Your task to perform on an android device: turn notification dots off Image 0: 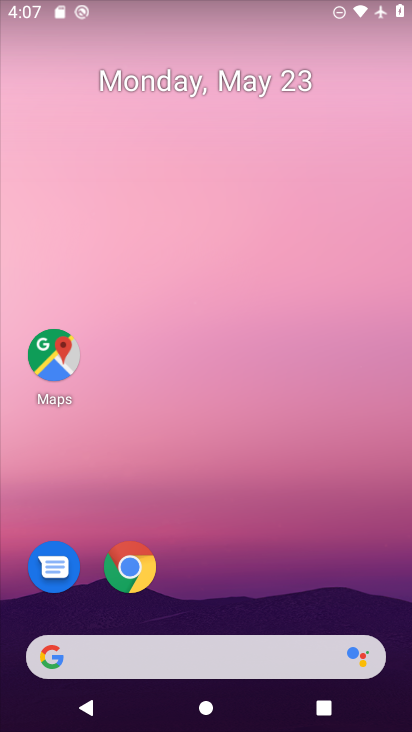
Step 0: drag from (386, 641) to (291, 85)
Your task to perform on an android device: turn notification dots off Image 1: 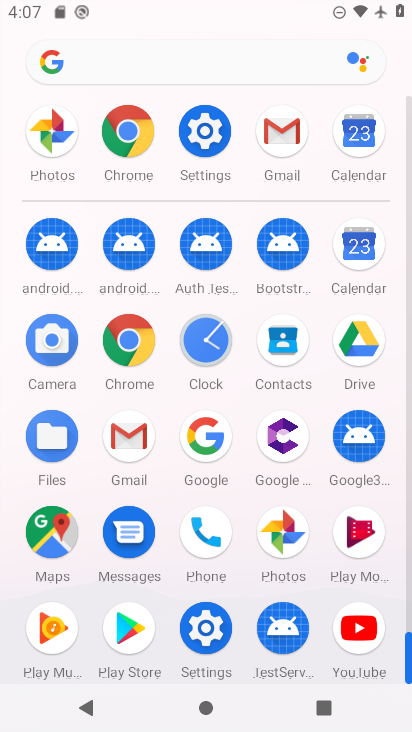
Step 1: click (203, 627)
Your task to perform on an android device: turn notification dots off Image 2: 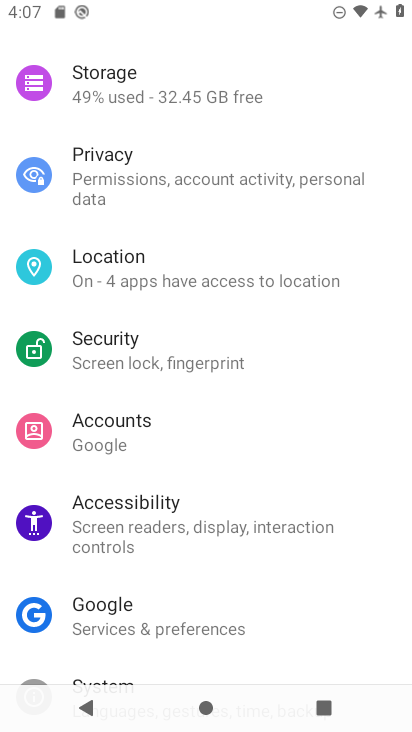
Step 2: drag from (309, 138) to (336, 471)
Your task to perform on an android device: turn notification dots off Image 3: 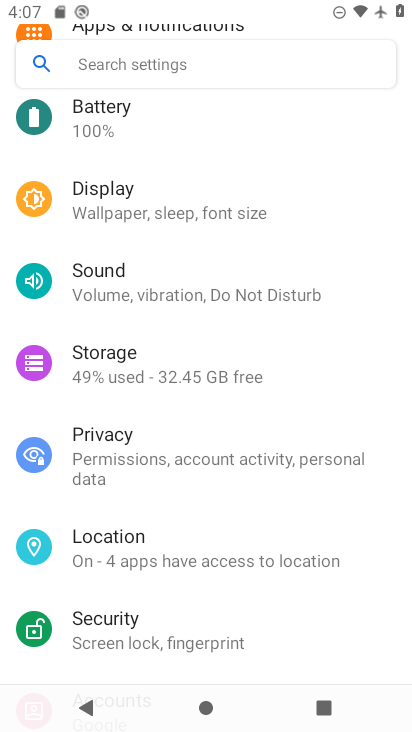
Step 3: drag from (173, 179) to (218, 495)
Your task to perform on an android device: turn notification dots off Image 4: 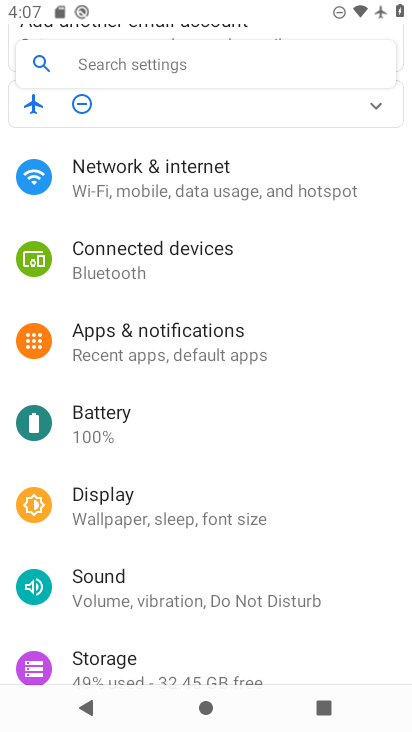
Step 4: click (137, 343)
Your task to perform on an android device: turn notification dots off Image 5: 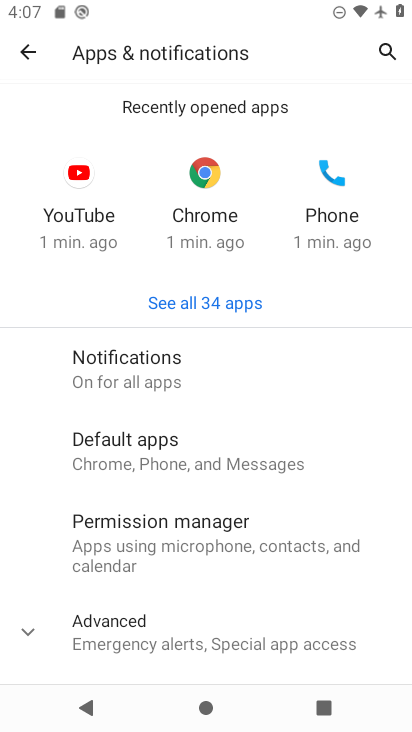
Step 5: click (139, 371)
Your task to perform on an android device: turn notification dots off Image 6: 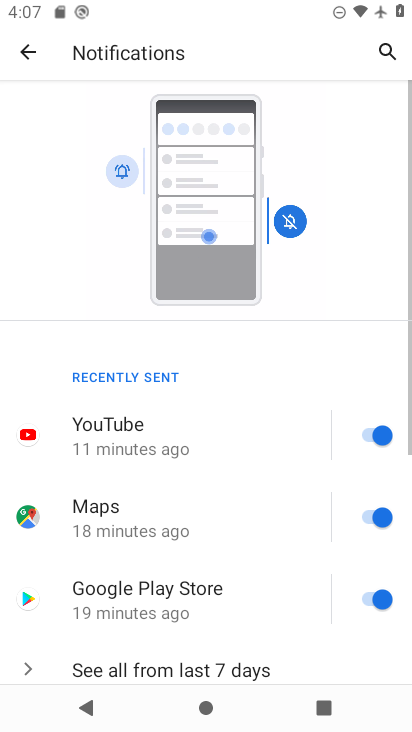
Step 6: drag from (299, 646) to (261, 124)
Your task to perform on an android device: turn notification dots off Image 7: 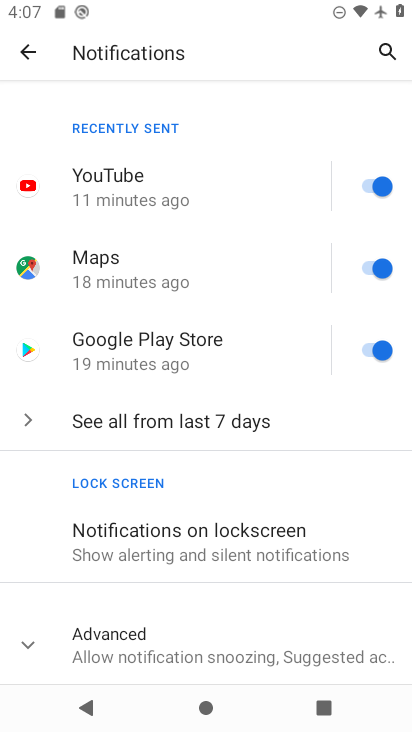
Step 7: click (130, 641)
Your task to perform on an android device: turn notification dots off Image 8: 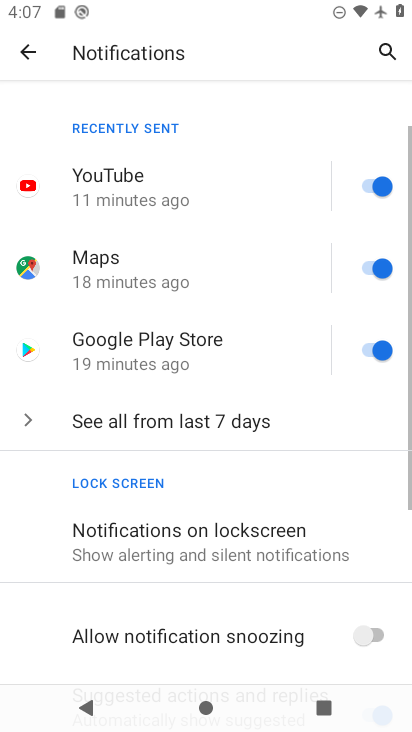
Step 8: task complete